Your task to perform on an android device: check data usage Image 0: 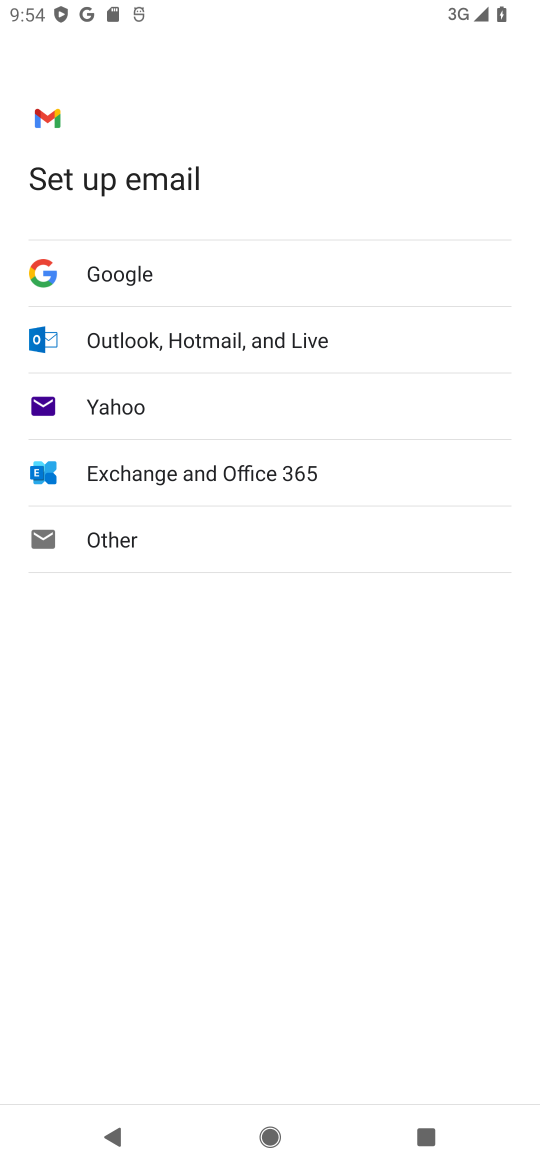
Step 0: press home button
Your task to perform on an android device: check data usage Image 1: 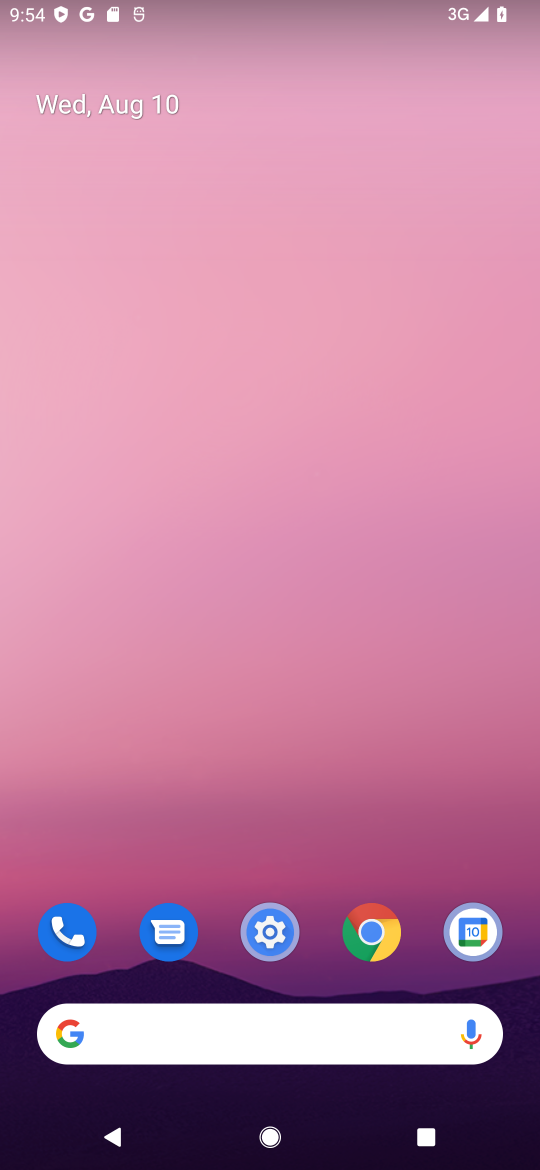
Step 1: click (264, 933)
Your task to perform on an android device: check data usage Image 2: 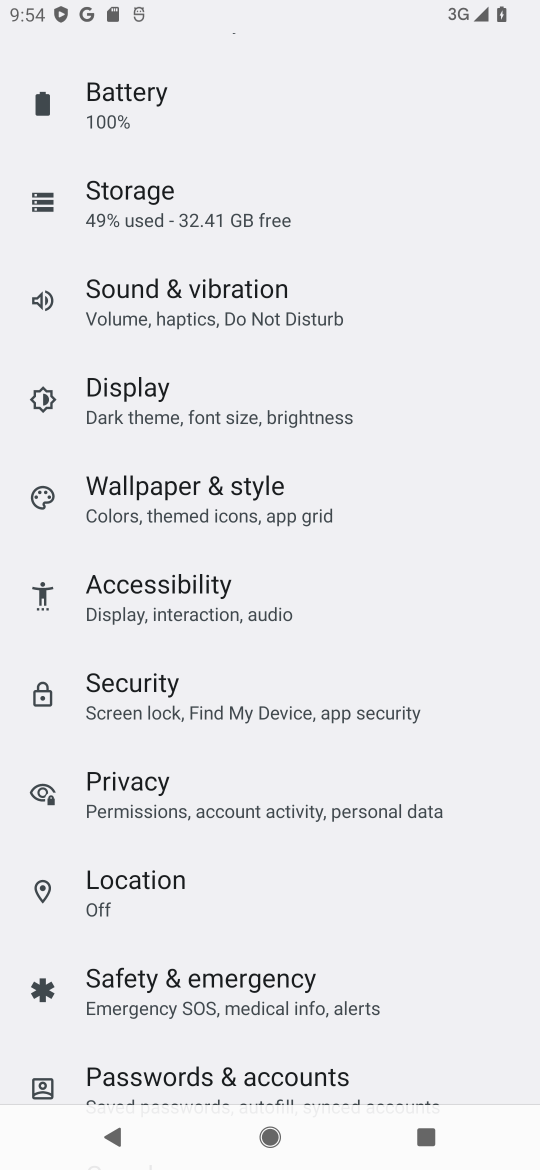
Step 2: drag from (402, 229) to (394, 738)
Your task to perform on an android device: check data usage Image 3: 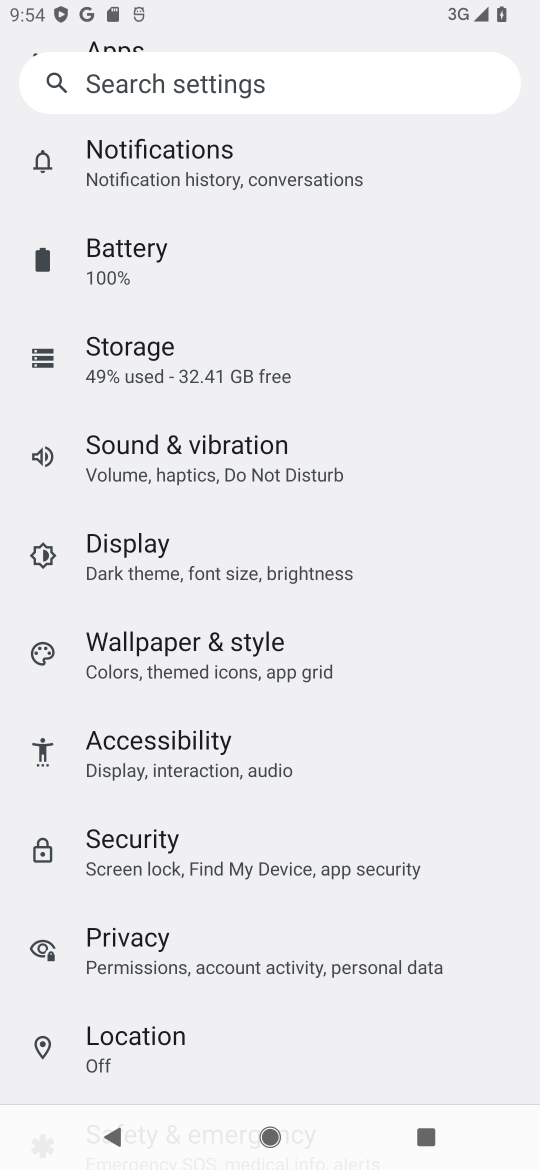
Step 3: drag from (336, 258) to (298, 862)
Your task to perform on an android device: check data usage Image 4: 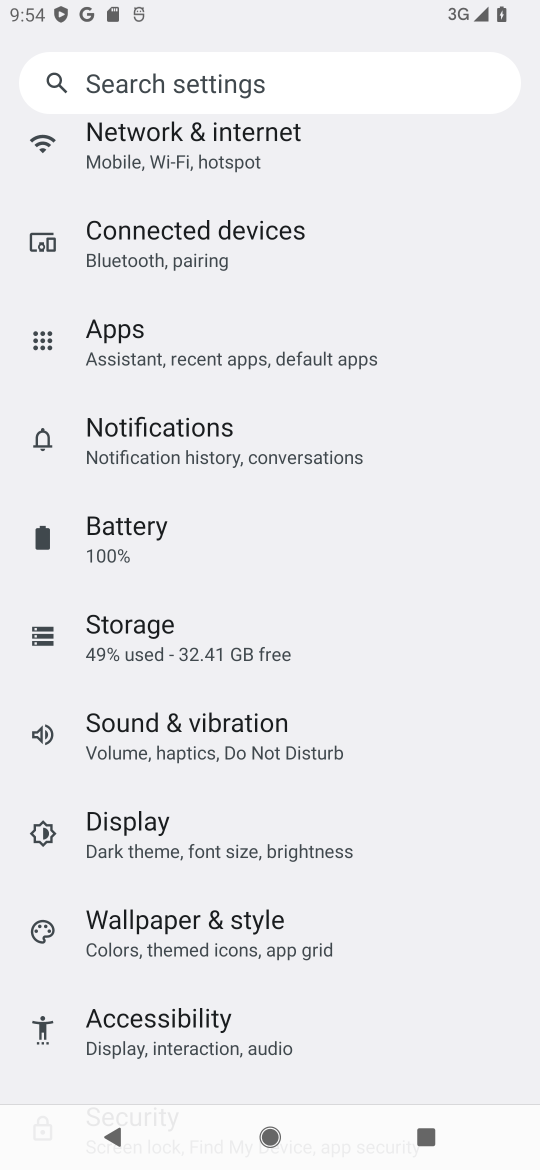
Step 4: click (212, 130)
Your task to perform on an android device: check data usage Image 5: 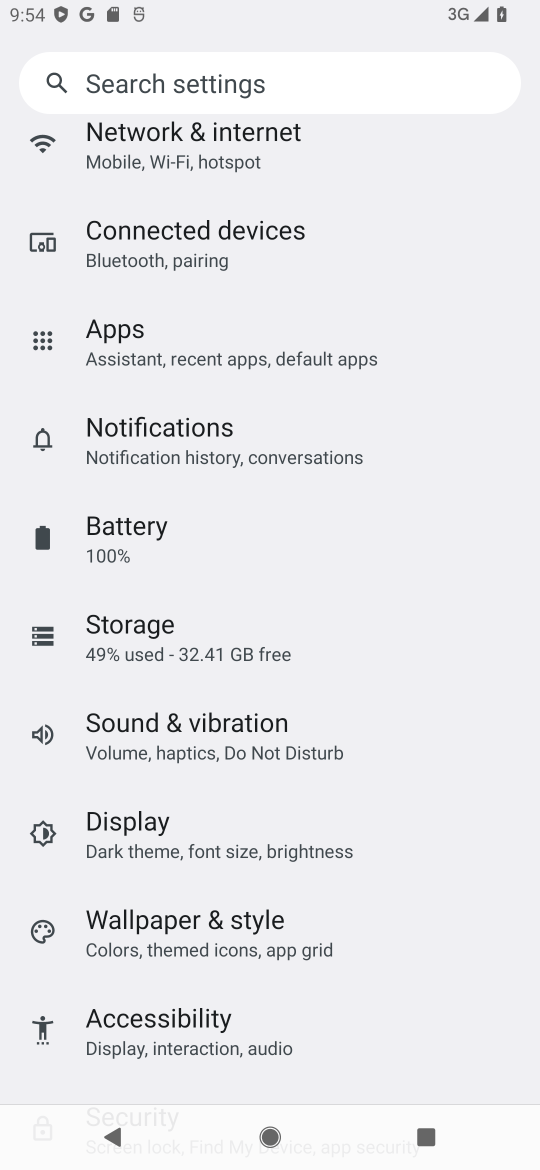
Step 5: click (132, 135)
Your task to perform on an android device: check data usage Image 6: 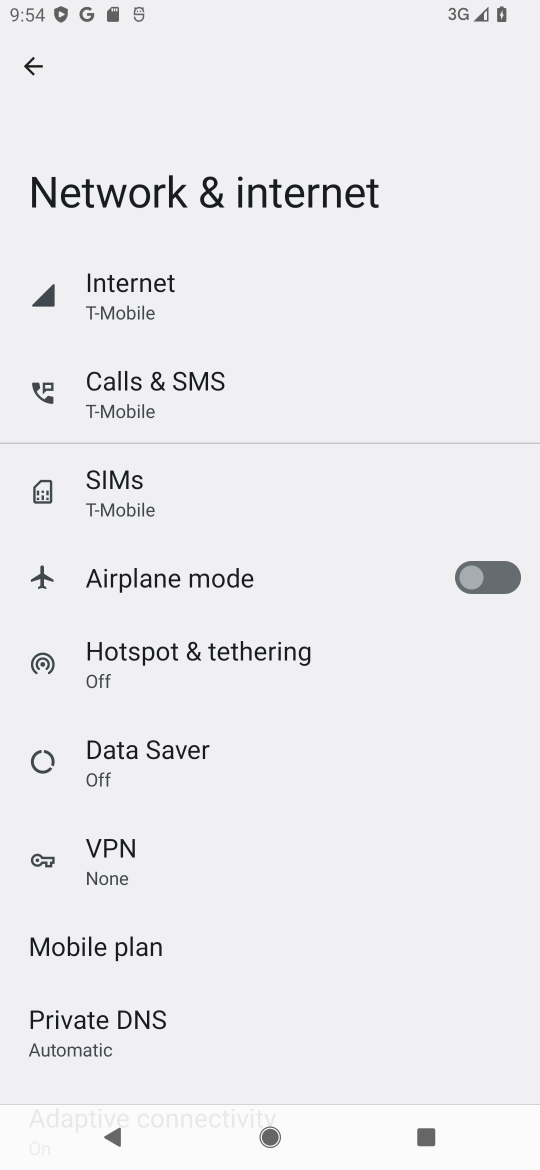
Step 6: click (148, 280)
Your task to perform on an android device: check data usage Image 7: 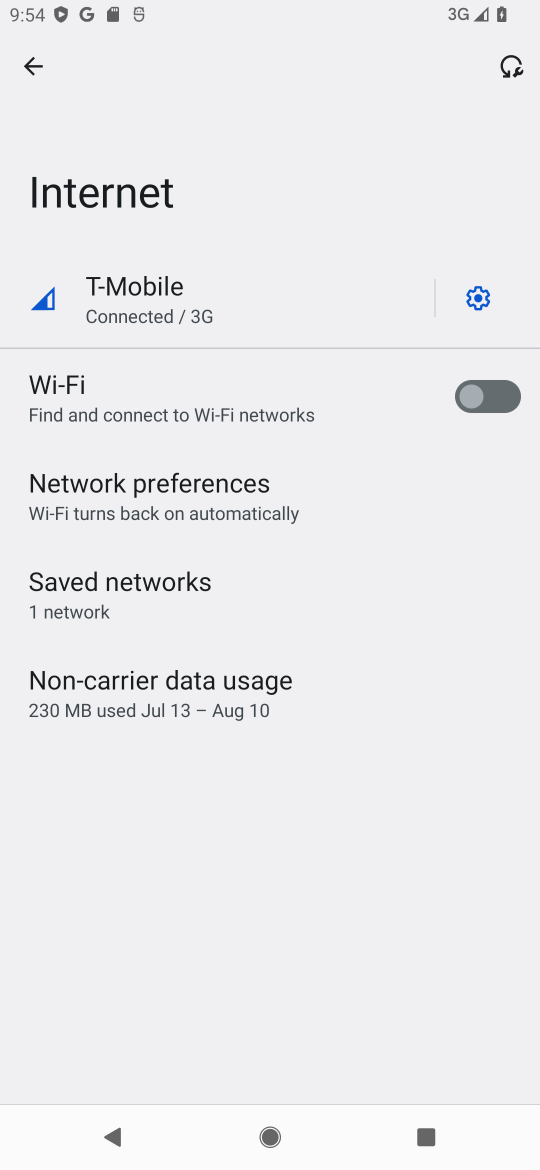
Step 7: click (119, 667)
Your task to perform on an android device: check data usage Image 8: 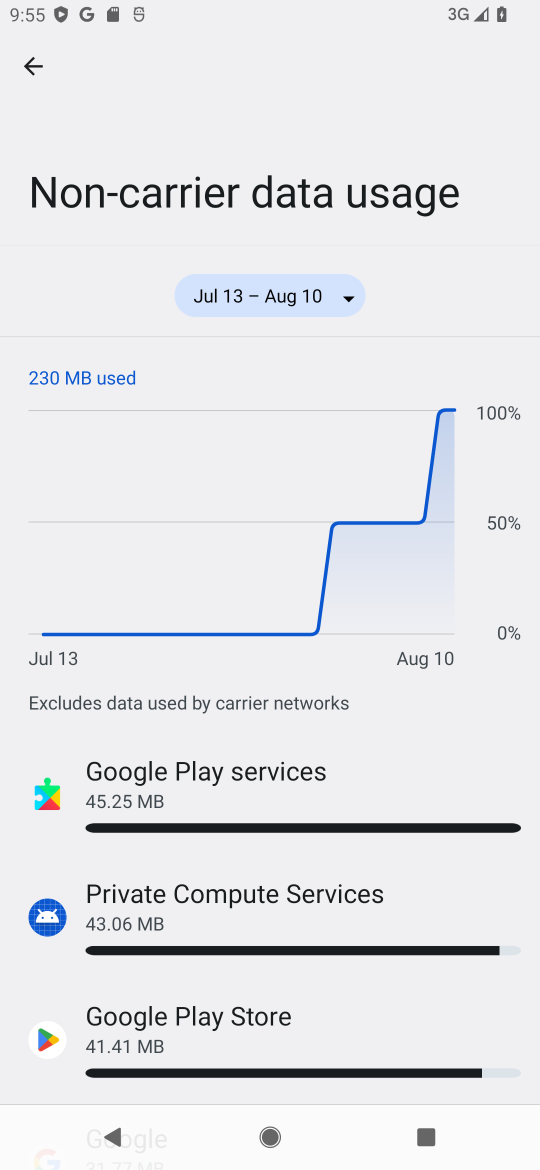
Step 8: task complete